Your task to perform on an android device: install app "Fetch Rewards" Image 0: 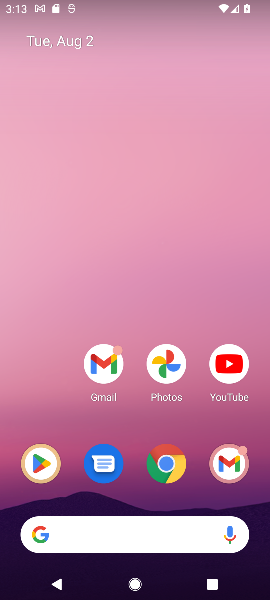
Step 0: press home button
Your task to perform on an android device: install app "Fetch Rewards" Image 1: 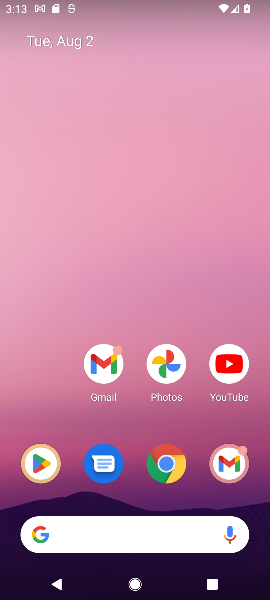
Step 1: click (36, 464)
Your task to perform on an android device: install app "Fetch Rewards" Image 2: 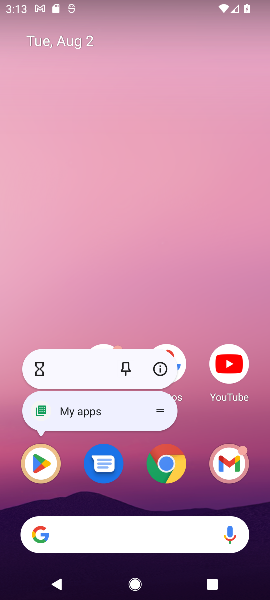
Step 2: click (42, 463)
Your task to perform on an android device: install app "Fetch Rewards" Image 3: 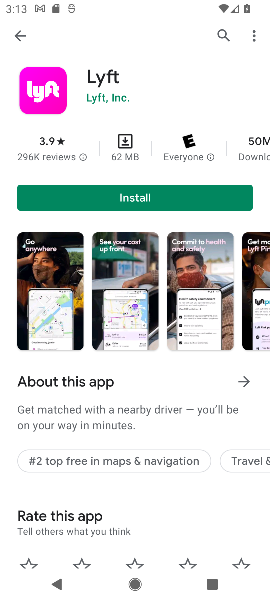
Step 3: click (218, 31)
Your task to perform on an android device: install app "Fetch Rewards" Image 4: 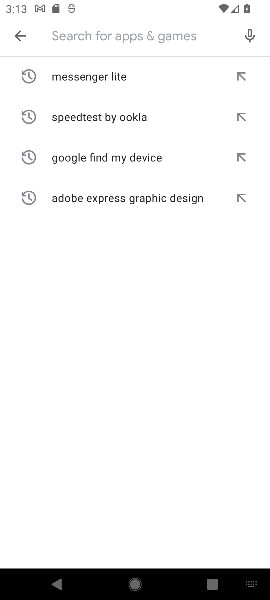
Step 4: type "Fetch Rewards"
Your task to perform on an android device: install app "Fetch Rewards" Image 5: 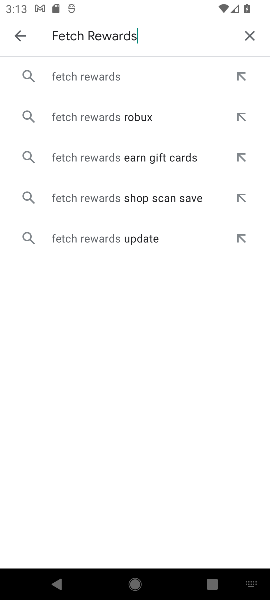
Step 5: click (104, 74)
Your task to perform on an android device: install app "Fetch Rewards" Image 6: 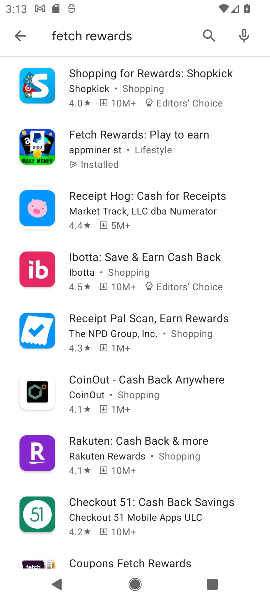
Step 6: click (128, 138)
Your task to perform on an android device: install app "Fetch Rewards" Image 7: 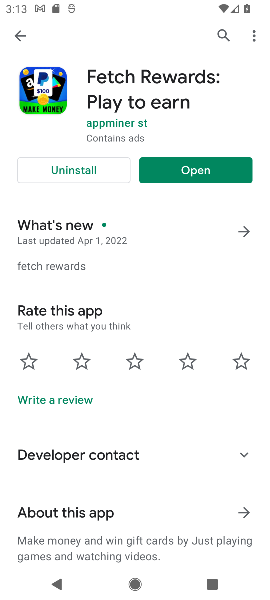
Step 7: task complete